Your task to perform on an android device: toggle priority inbox in the gmail app Image 0: 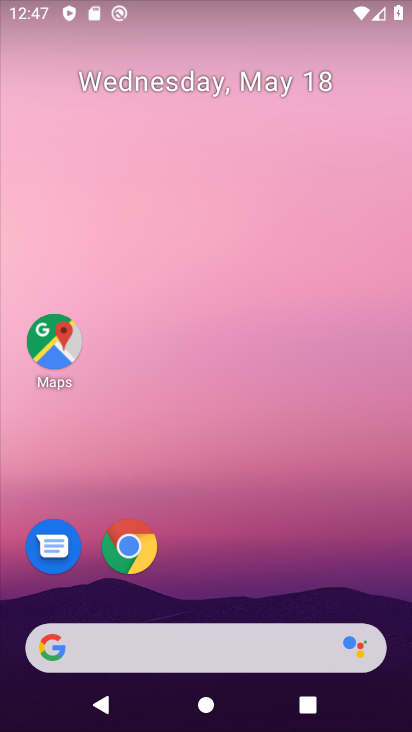
Step 0: drag from (184, 604) to (269, 170)
Your task to perform on an android device: toggle priority inbox in the gmail app Image 1: 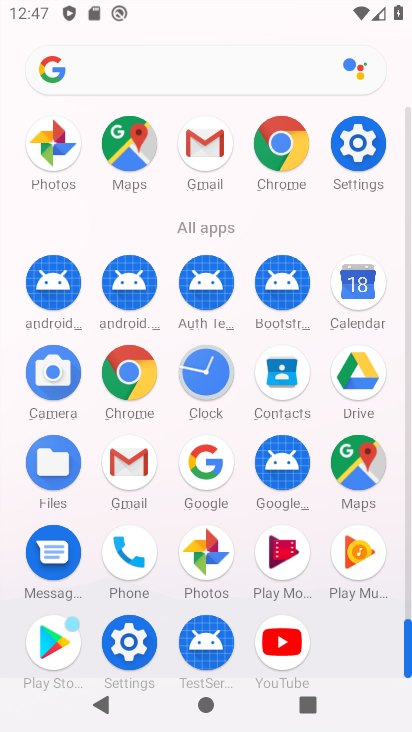
Step 1: click (132, 477)
Your task to perform on an android device: toggle priority inbox in the gmail app Image 2: 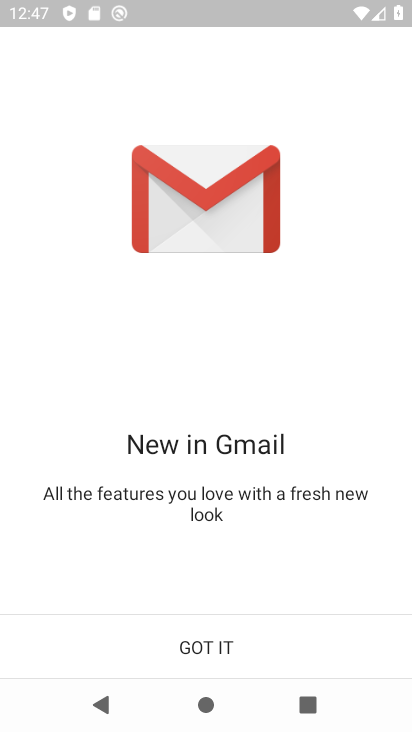
Step 2: click (217, 639)
Your task to perform on an android device: toggle priority inbox in the gmail app Image 3: 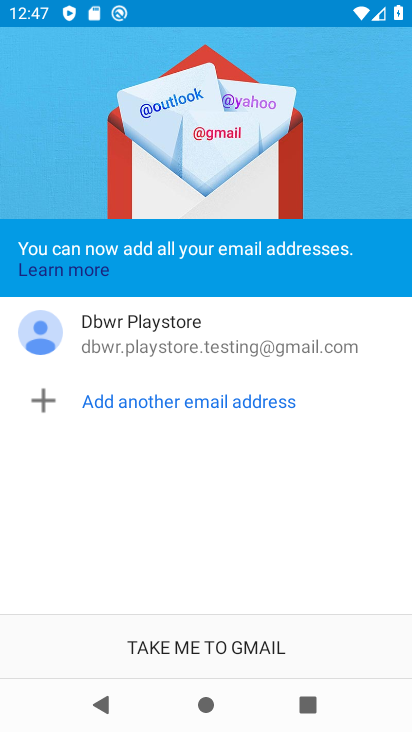
Step 3: click (280, 647)
Your task to perform on an android device: toggle priority inbox in the gmail app Image 4: 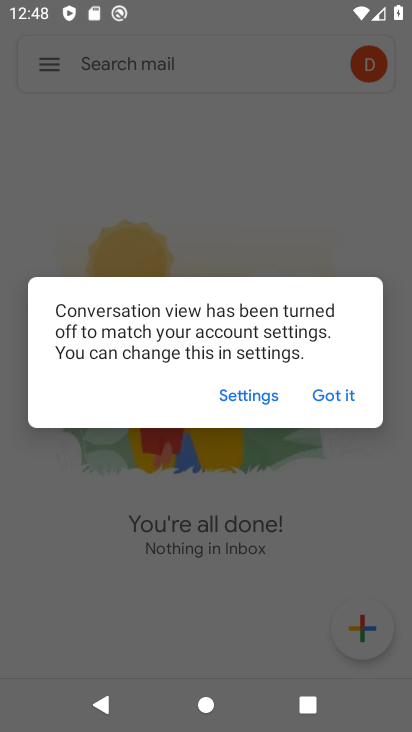
Step 4: click (328, 387)
Your task to perform on an android device: toggle priority inbox in the gmail app Image 5: 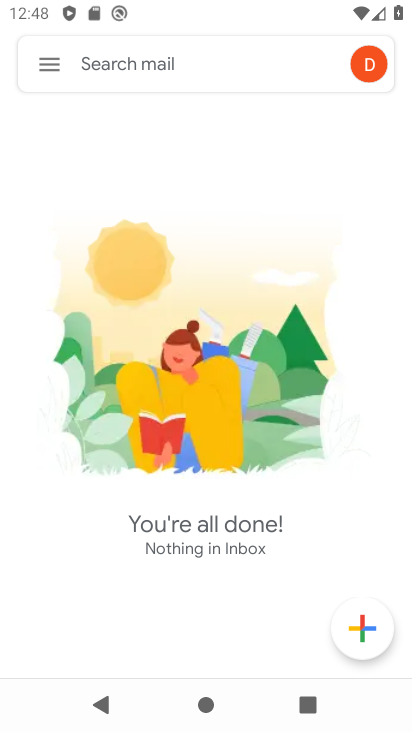
Step 5: click (55, 58)
Your task to perform on an android device: toggle priority inbox in the gmail app Image 6: 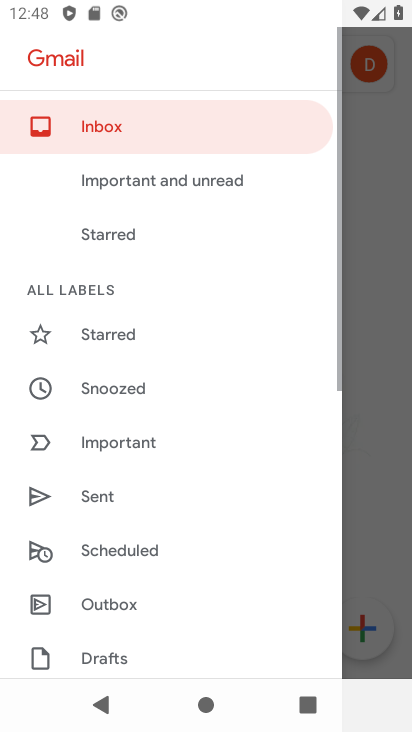
Step 6: drag from (124, 558) to (252, 172)
Your task to perform on an android device: toggle priority inbox in the gmail app Image 7: 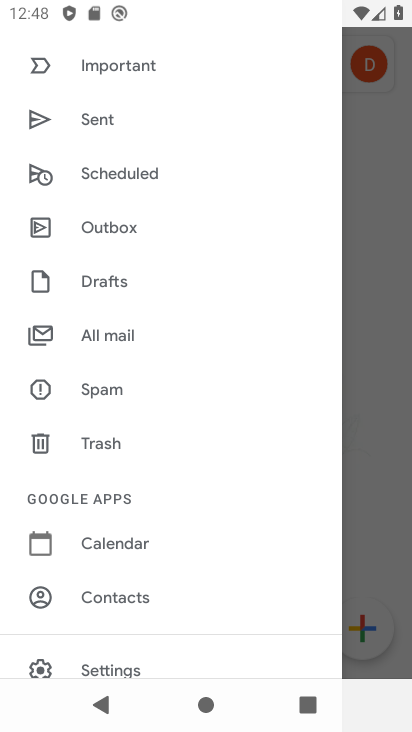
Step 7: drag from (125, 645) to (197, 363)
Your task to perform on an android device: toggle priority inbox in the gmail app Image 8: 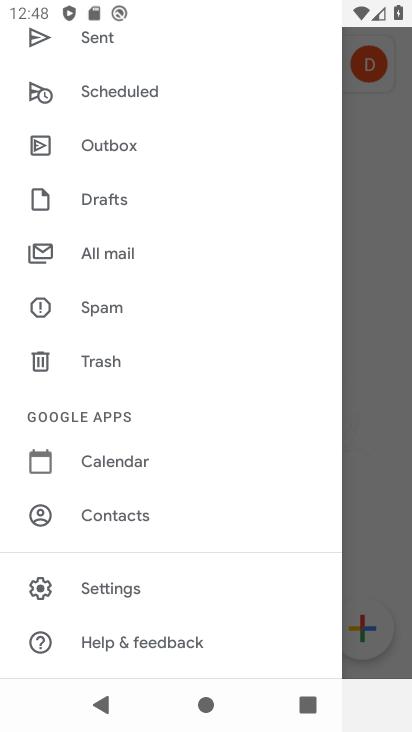
Step 8: click (100, 599)
Your task to perform on an android device: toggle priority inbox in the gmail app Image 9: 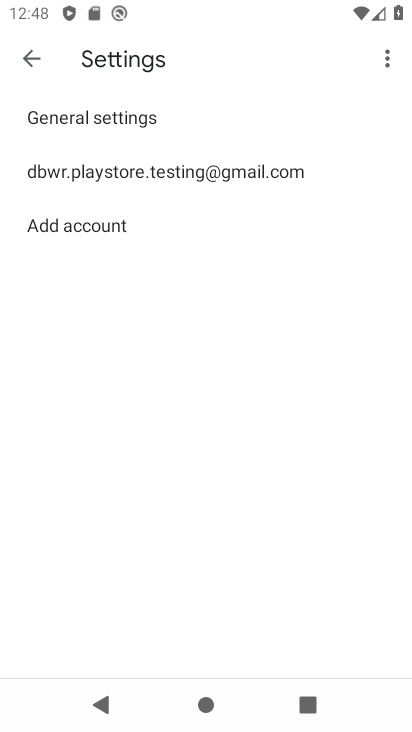
Step 9: click (226, 173)
Your task to perform on an android device: toggle priority inbox in the gmail app Image 10: 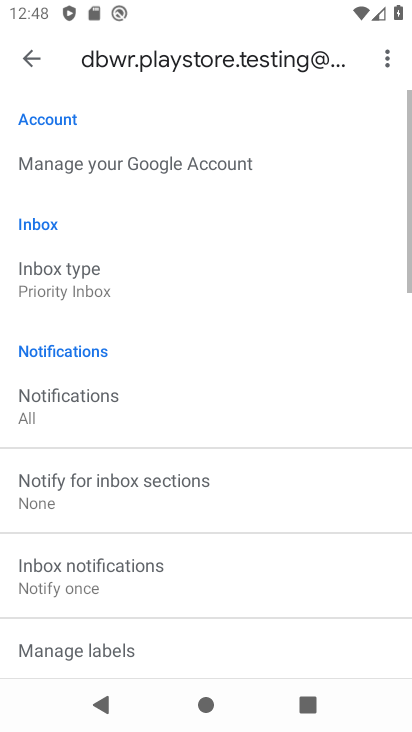
Step 10: drag from (184, 484) to (232, 574)
Your task to perform on an android device: toggle priority inbox in the gmail app Image 11: 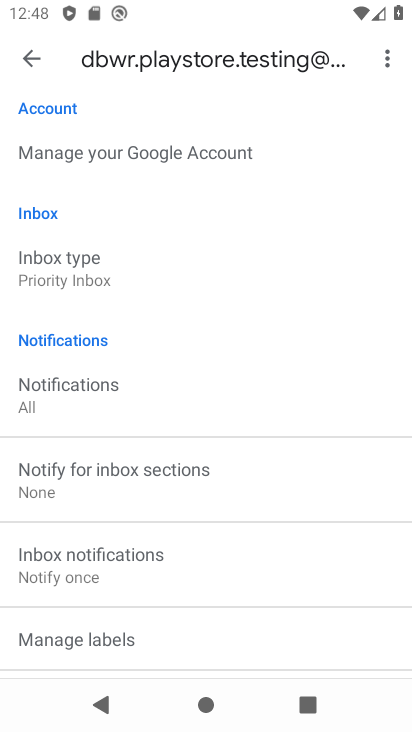
Step 11: click (170, 270)
Your task to perform on an android device: toggle priority inbox in the gmail app Image 12: 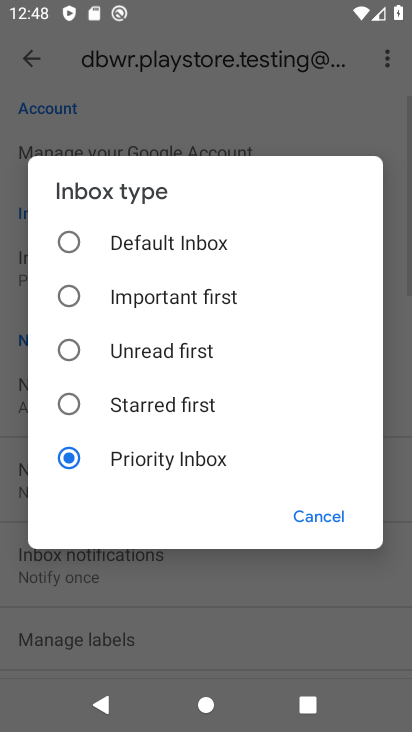
Step 12: click (175, 240)
Your task to perform on an android device: toggle priority inbox in the gmail app Image 13: 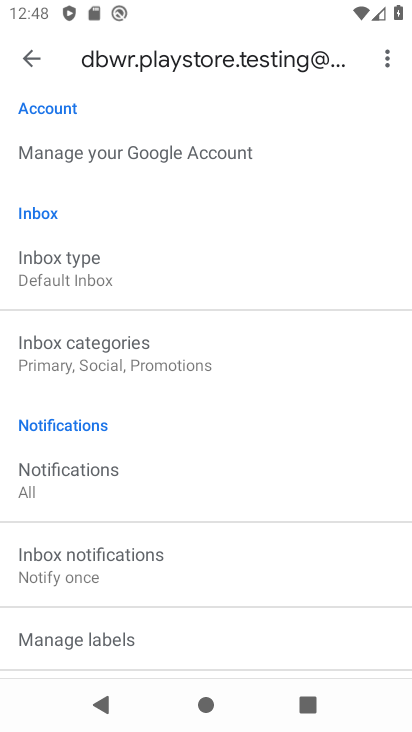
Step 13: task complete